Your task to perform on an android device: Open calendar and show me the fourth week of next month Image 0: 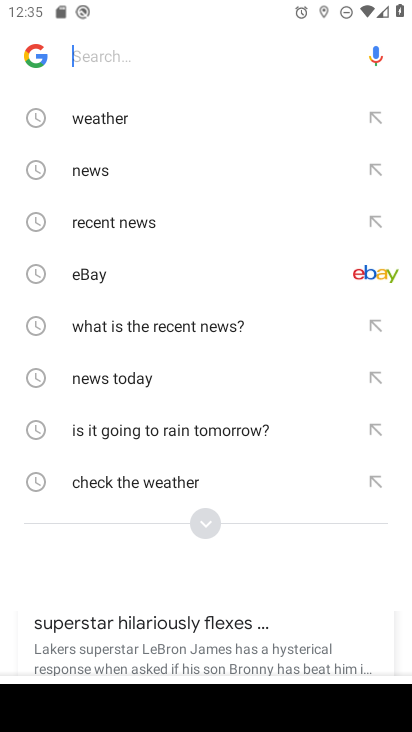
Step 0: press home button
Your task to perform on an android device: Open calendar and show me the fourth week of next month Image 1: 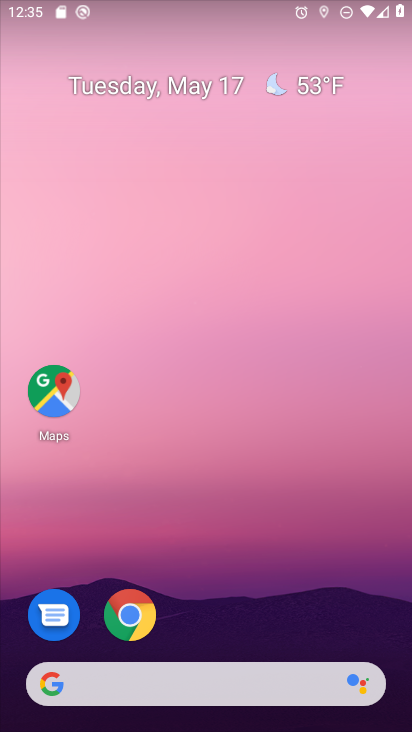
Step 1: drag from (178, 628) to (214, 255)
Your task to perform on an android device: Open calendar and show me the fourth week of next month Image 2: 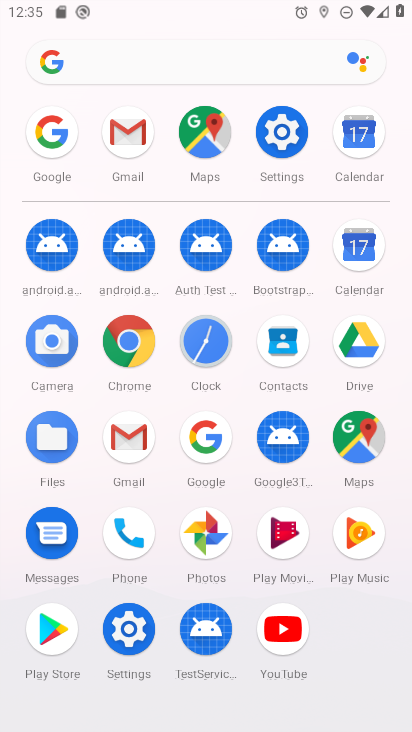
Step 2: click (368, 131)
Your task to perform on an android device: Open calendar and show me the fourth week of next month Image 3: 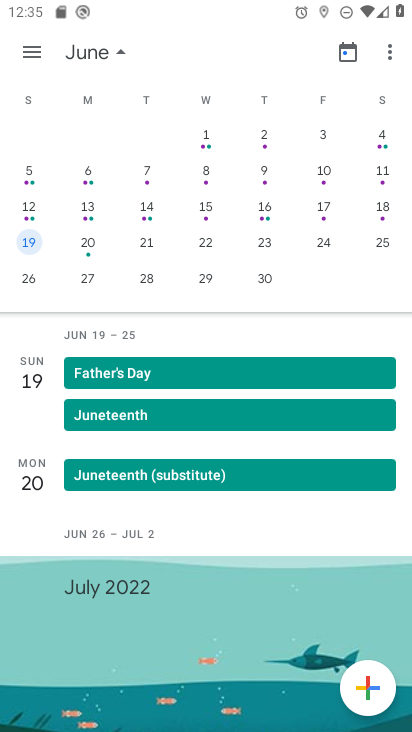
Step 3: task complete